Your task to perform on an android device: Find coffee shops on Maps Image 0: 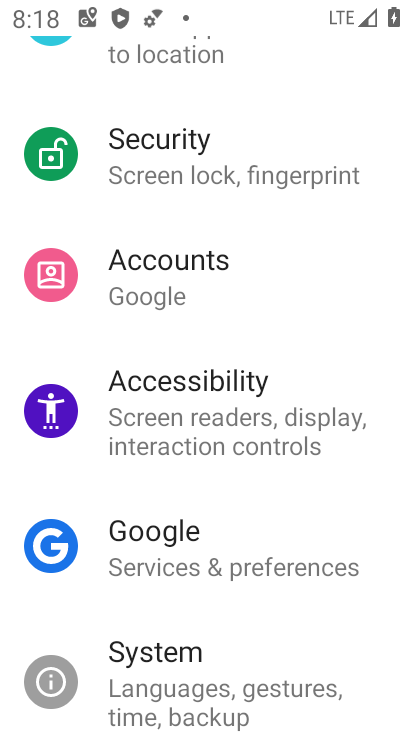
Step 0: press home button
Your task to perform on an android device: Find coffee shops on Maps Image 1: 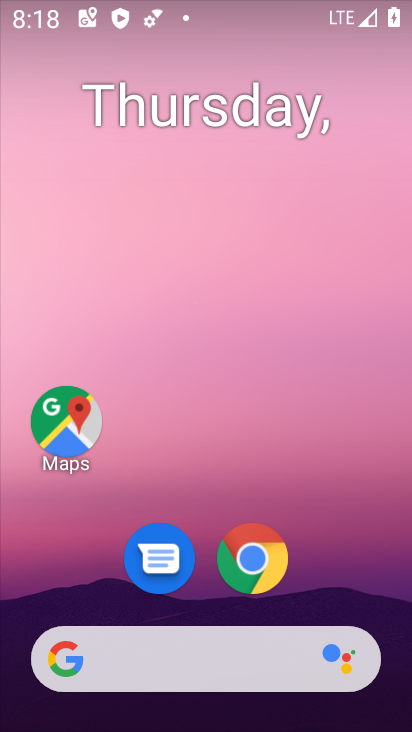
Step 1: click (62, 429)
Your task to perform on an android device: Find coffee shops on Maps Image 2: 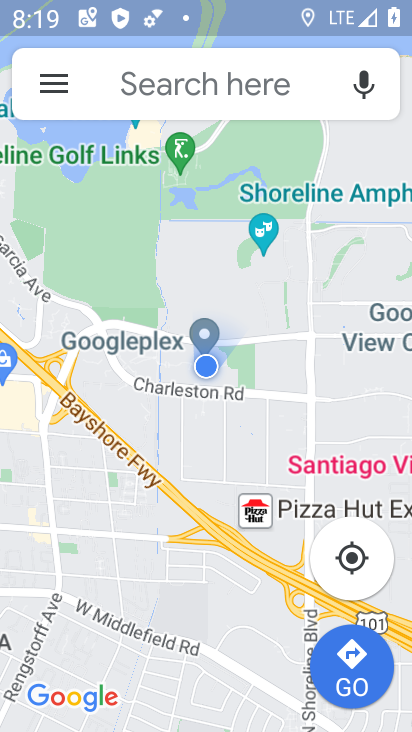
Step 2: click (235, 83)
Your task to perform on an android device: Find coffee shops on Maps Image 3: 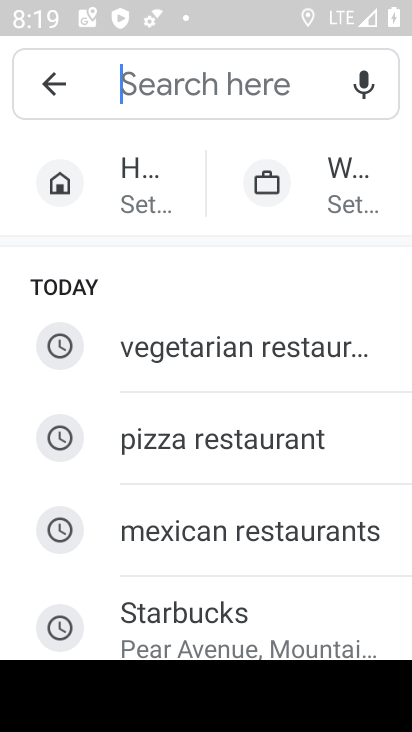
Step 3: drag from (220, 518) to (264, 226)
Your task to perform on an android device: Find coffee shops on Maps Image 4: 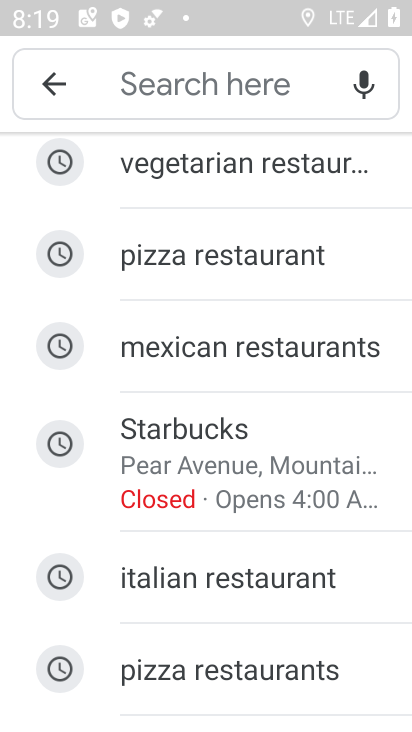
Step 4: drag from (206, 718) to (310, 183)
Your task to perform on an android device: Find coffee shops on Maps Image 5: 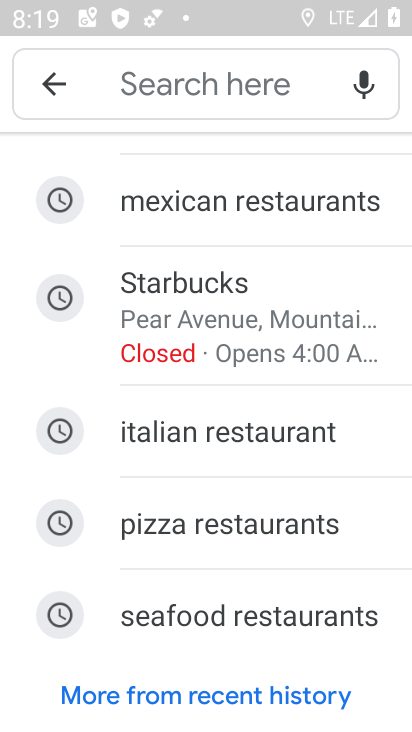
Step 5: drag from (192, 639) to (237, 288)
Your task to perform on an android device: Find coffee shops on Maps Image 6: 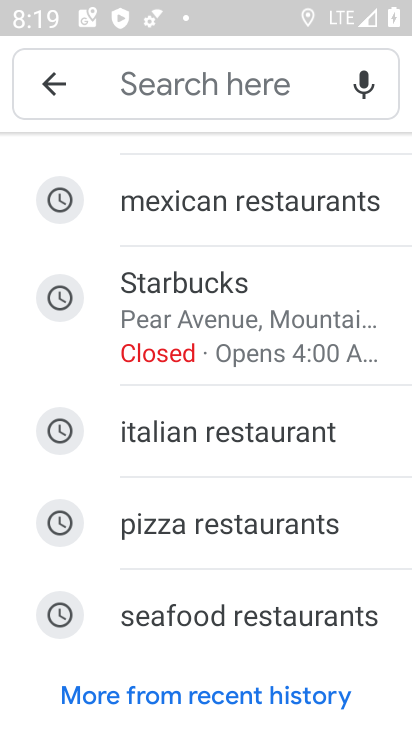
Step 6: click (176, 692)
Your task to perform on an android device: Find coffee shops on Maps Image 7: 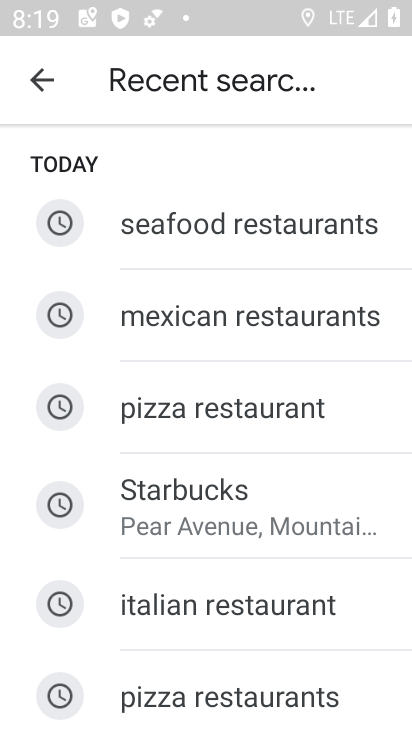
Step 7: drag from (195, 473) to (236, 179)
Your task to perform on an android device: Find coffee shops on Maps Image 8: 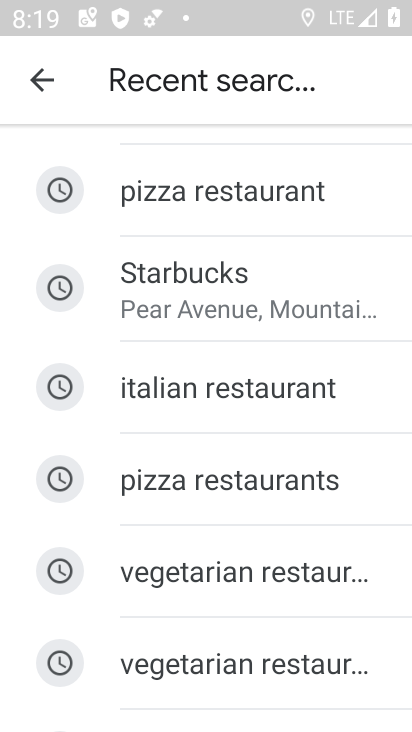
Step 8: type "coffee shopes"
Your task to perform on an android device: Find coffee shops on Maps Image 9: 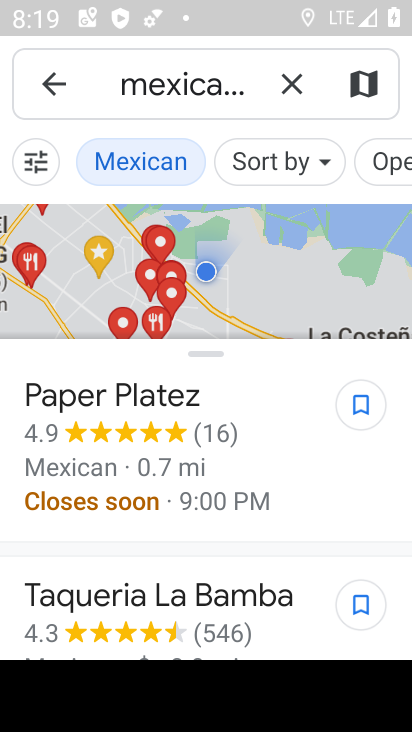
Step 9: click (291, 91)
Your task to perform on an android device: Find coffee shops on Maps Image 10: 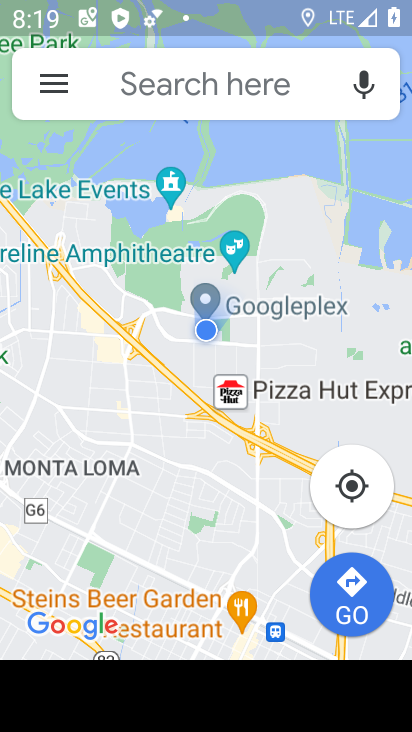
Step 10: click (152, 91)
Your task to perform on an android device: Find coffee shops on Maps Image 11: 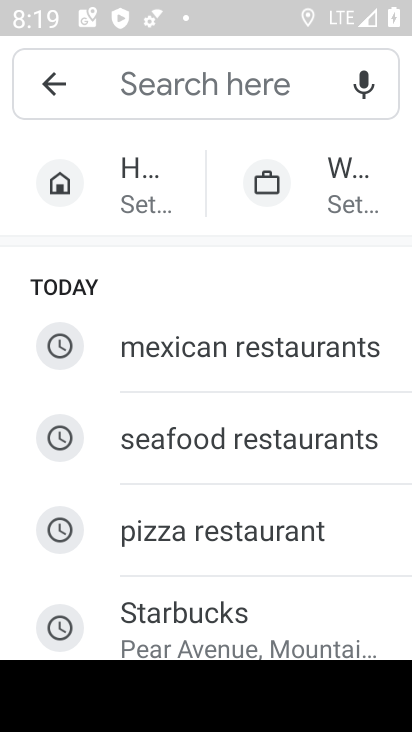
Step 11: type "coffee shopes"
Your task to perform on an android device: Find coffee shops on Maps Image 12: 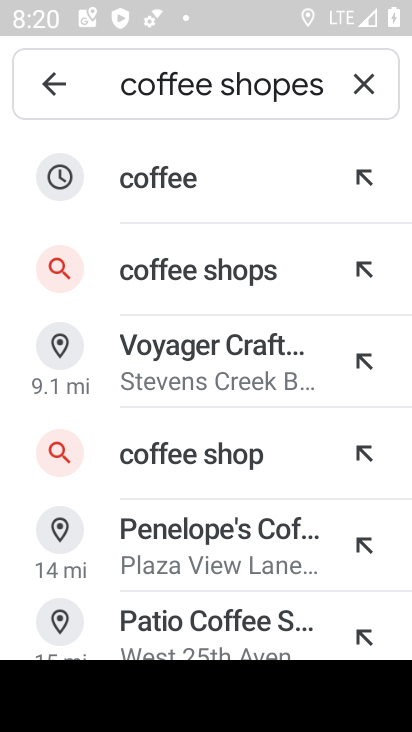
Step 12: click (204, 285)
Your task to perform on an android device: Find coffee shops on Maps Image 13: 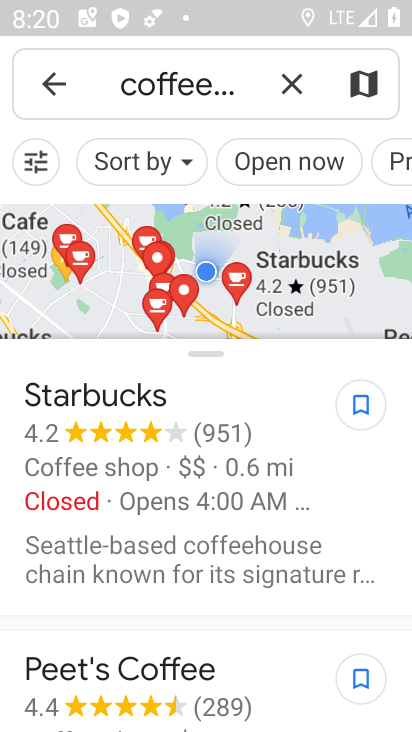
Step 13: task complete